Your task to perform on an android device: Open the map Image 0: 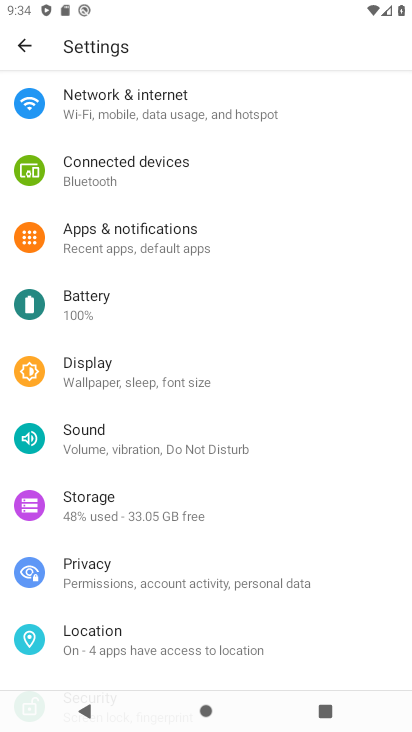
Step 0: press home button
Your task to perform on an android device: Open the map Image 1: 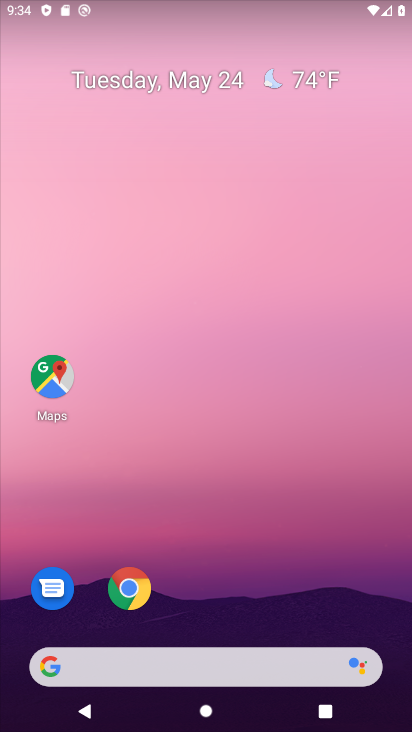
Step 1: click (50, 381)
Your task to perform on an android device: Open the map Image 2: 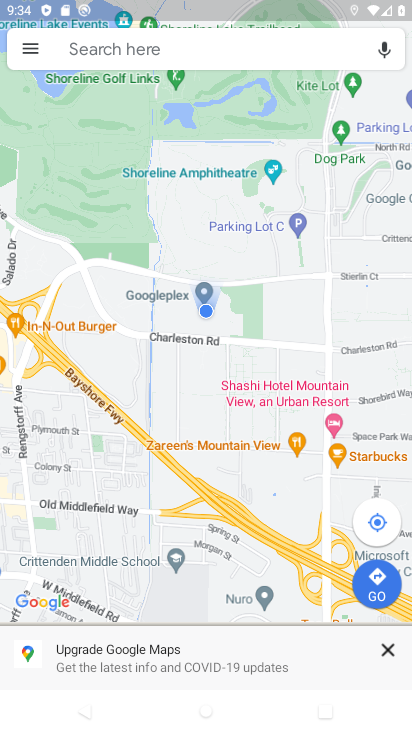
Step 2: task complete